Your task to perform on an android device: change the upload size in google photos Image 0: 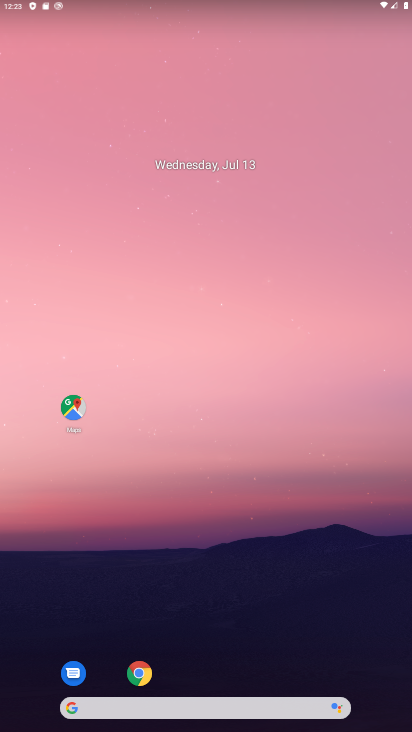
Step 0: drag from (258, 682) to (245, 59)
Your task to perform on an android device: change the upload size in google photos Image 1: 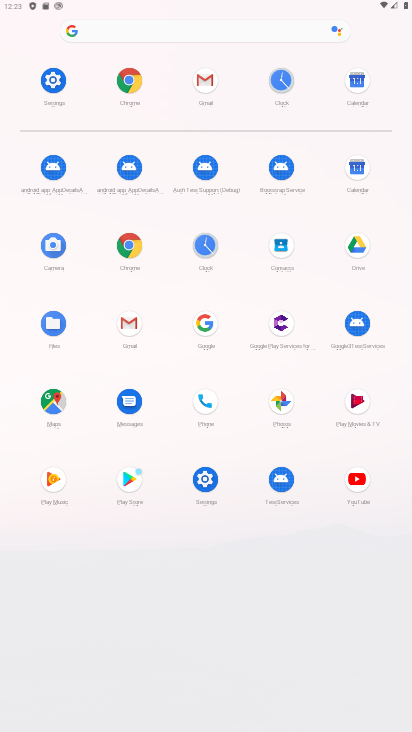
Step 1: click (285, 408)
Your task to perform on an android device: change the upload size in google photos Image 2: 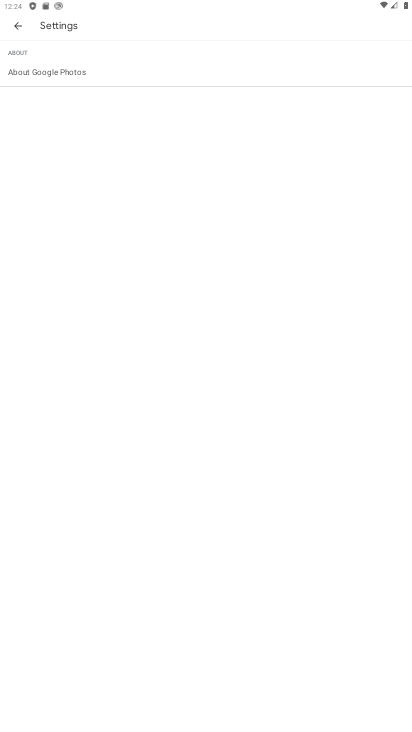
Step 2: click (18, 30)
Your task to perform on an android device: change the upload size in google photos Image 3: 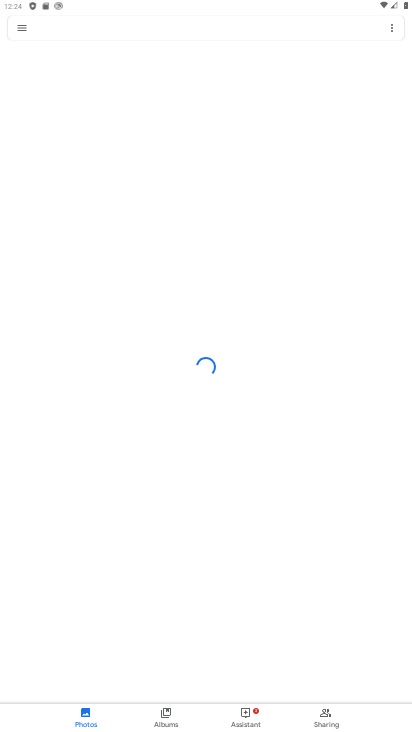
Step 3: task complete